Your task to perform on an android device: turn on improve location accuracy Image 0: 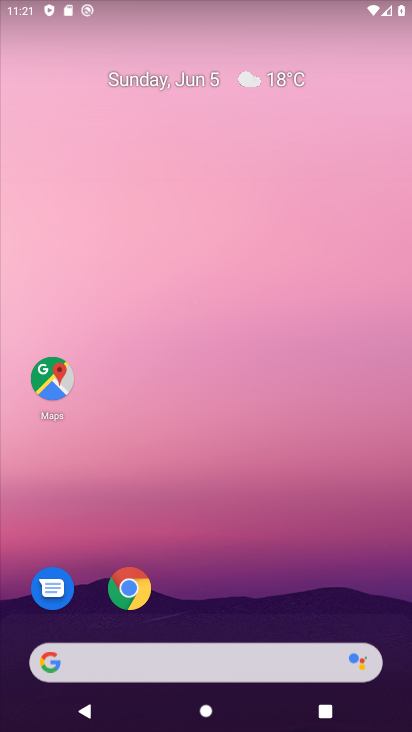
Step 0: drag from (249, 613) to (193, 144)
Your task to perform on an android device: turn on improve location accuracy Image 1: 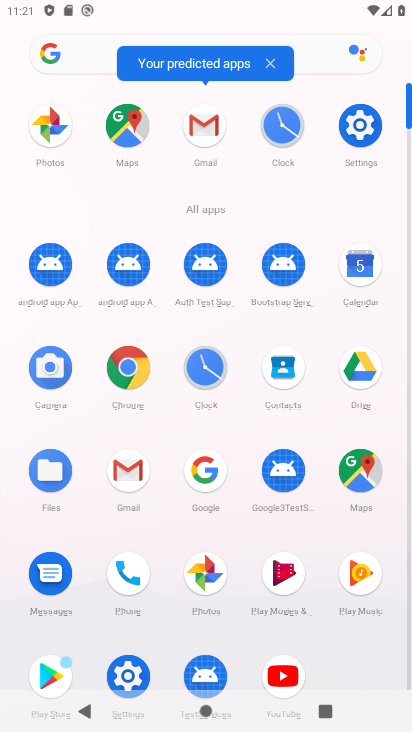
Step 1: click (366, 139)
Your task to perform on an android device: turn on improve location accuracy Image 2: 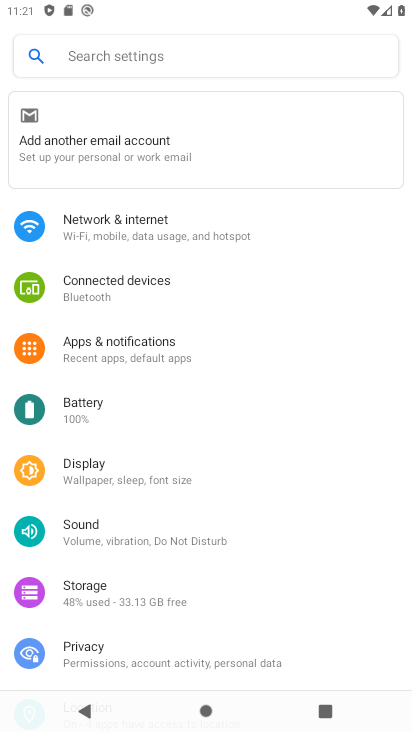
Step 2: drag from (135, 610) to (129, 263)
Your task to perform on an android device: turn on improve location accuracy Image 3: 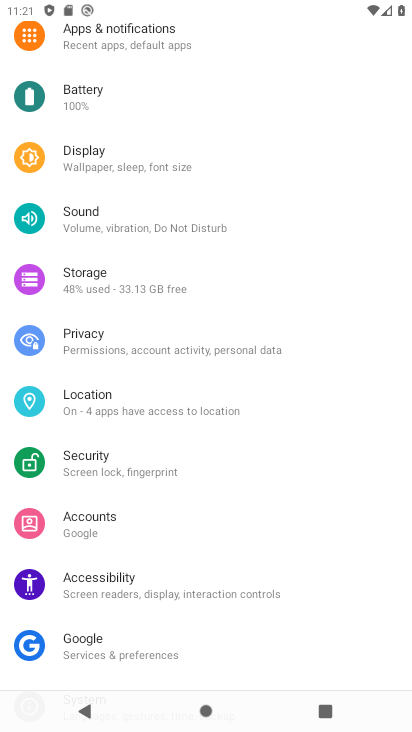
Step 3: click (145, 401)
Your task to perform on an android device: turn on improve location accuracy Image 4: 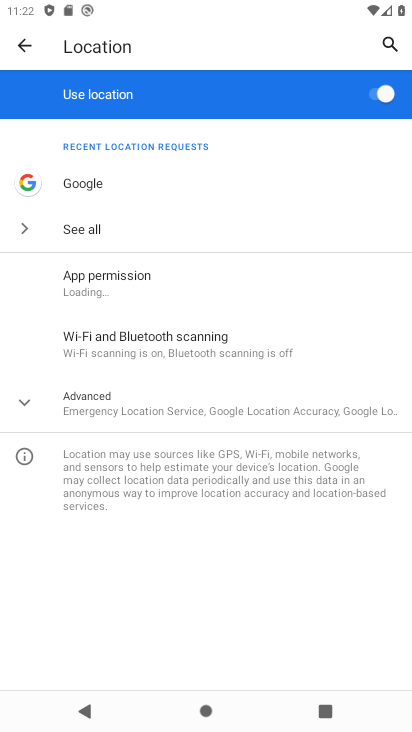
Step 4: click (203, 400)
Your task to perform on an android device: turn on improve location accuracy Image 5: 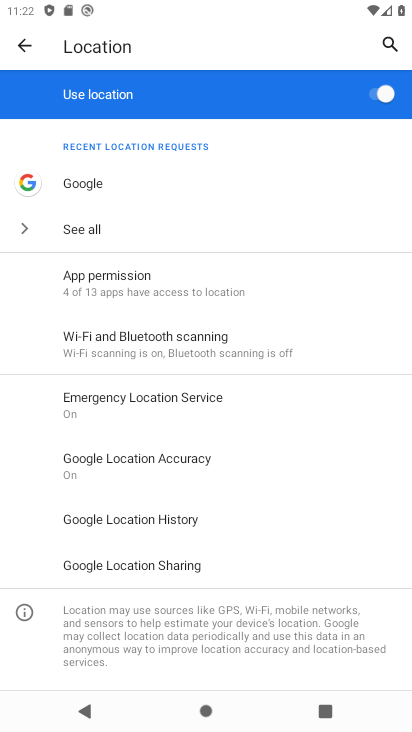
Step 5: drag from (228, 593) to (215, 473)
Your task to perform on an android device: turn on improve location accuracy Image 6: 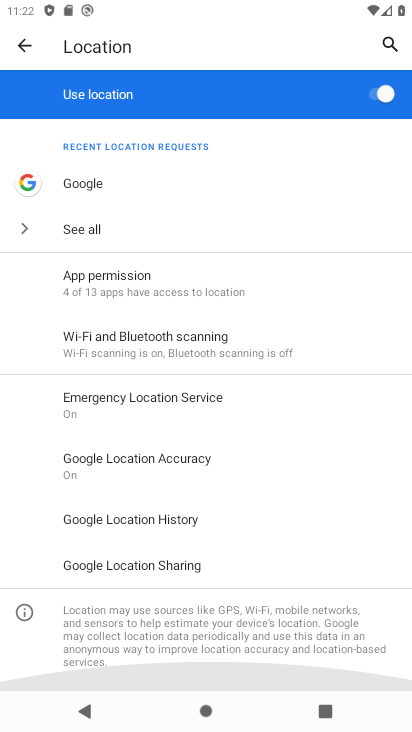
Step 6: click (210, 461)
Your task to perform on an android device: turn on improve location accuracy Image 7: 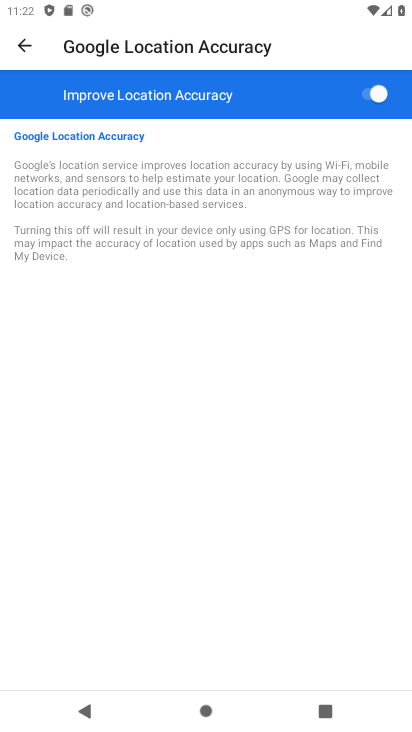
Step 7: task complete